Your task to perform on an android device: Open display settings Image 0: 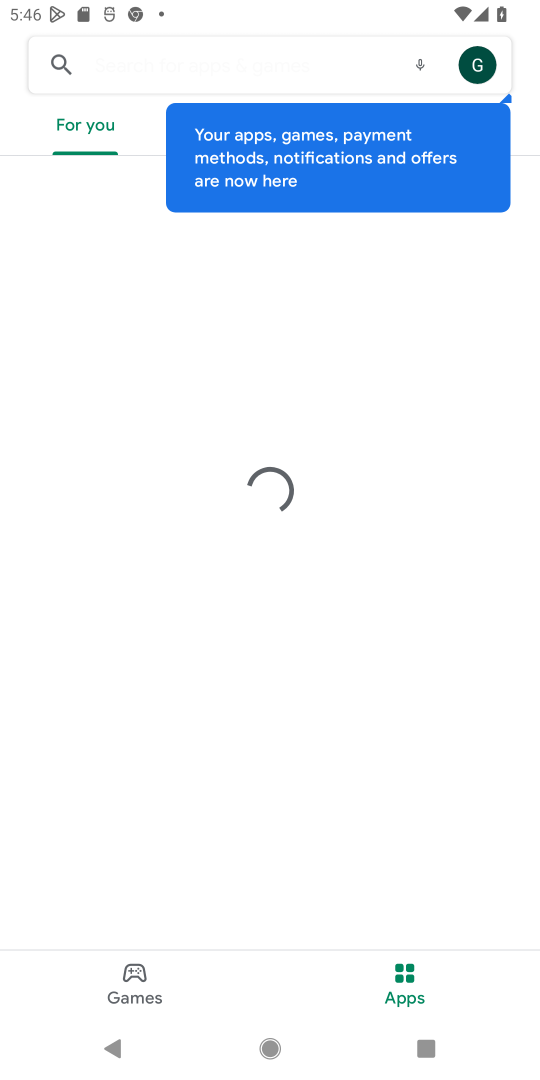
Step 0: press home button
Your task to perform on an android device: Open display settings Image 1: 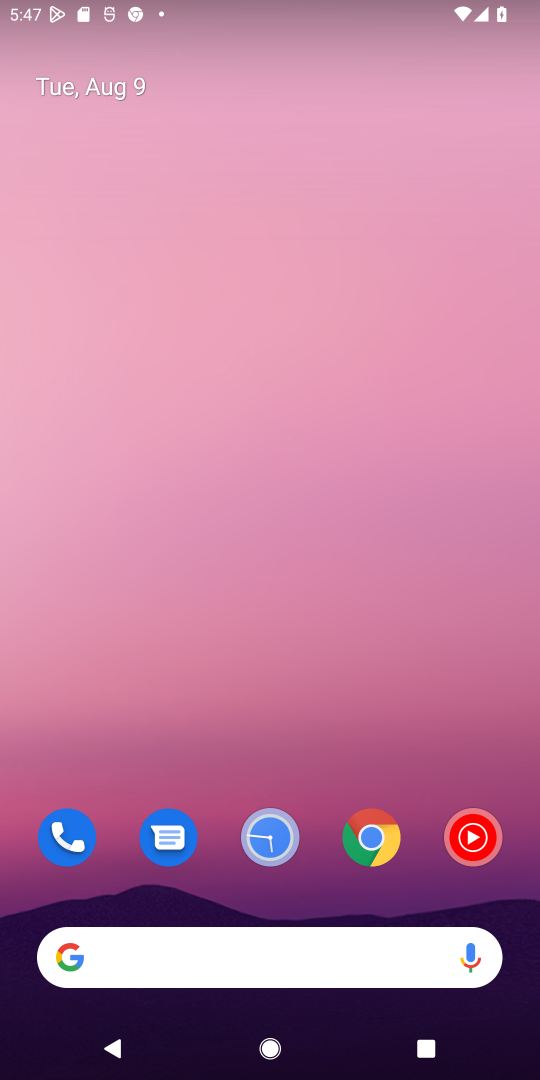
Step 1: drag from (167, 963) to (159, 366)
Your task to perform on an android device: Open display settings Image 2: 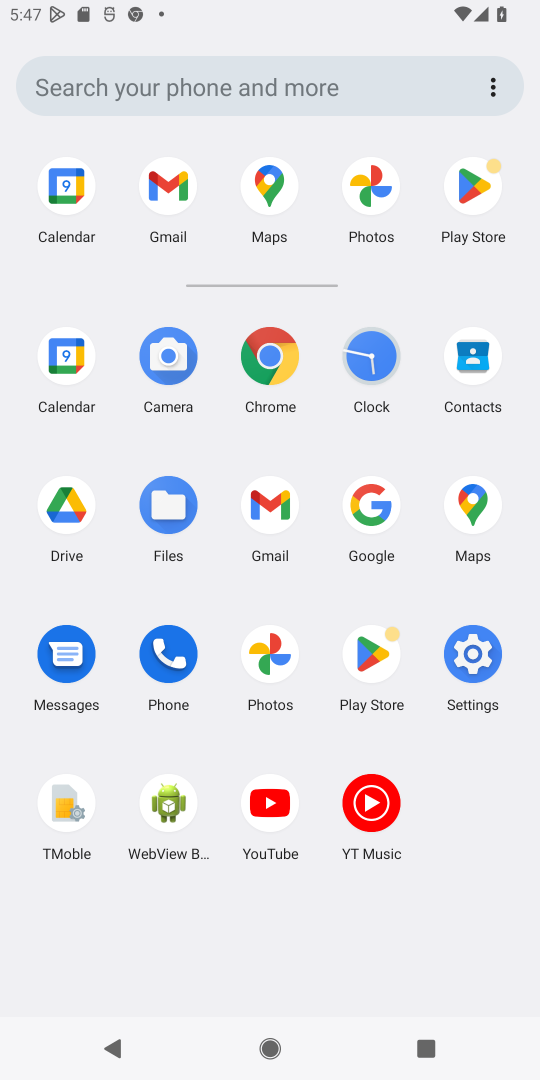
Step 2: click (456, 651)
Your task to perform on an android device: Open display settings Image 3: 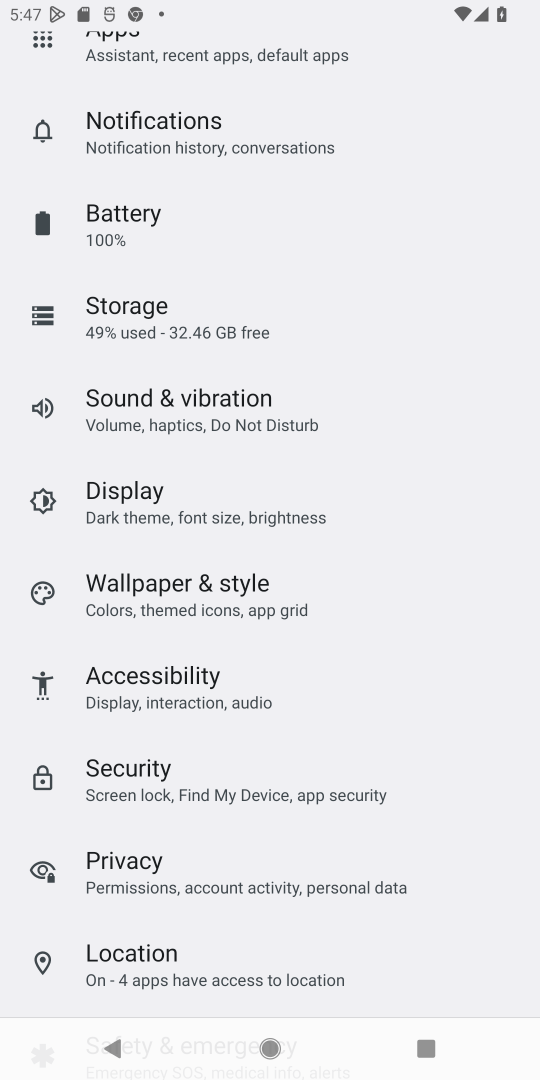
Step 3: drag from (204, 183) to (147, 609)
Your task to perform on an android device: Open display settings Image 4: 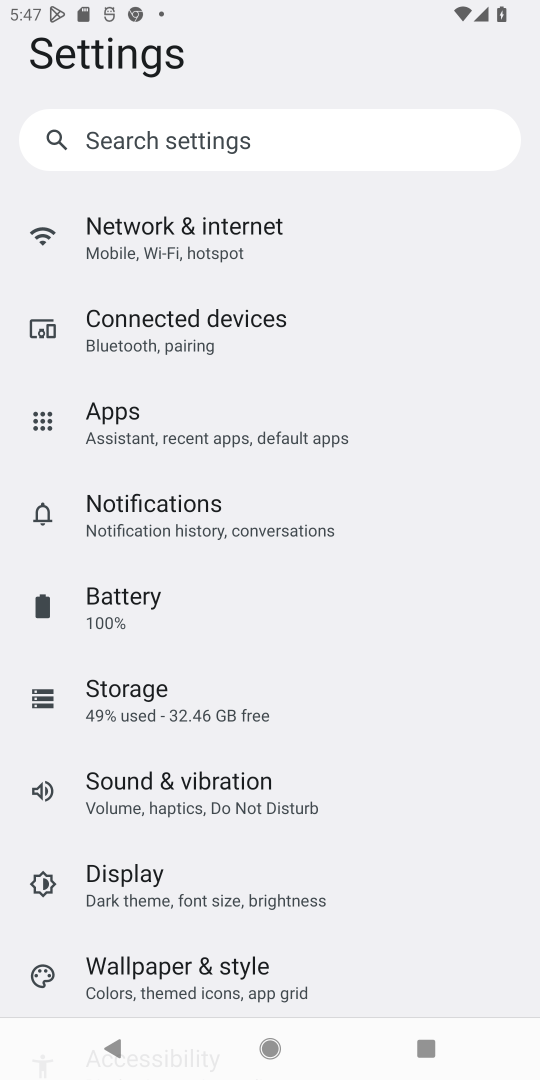
Step 4: click (153, 895)
Your task to perform on an android device: Open display settings Image 5: 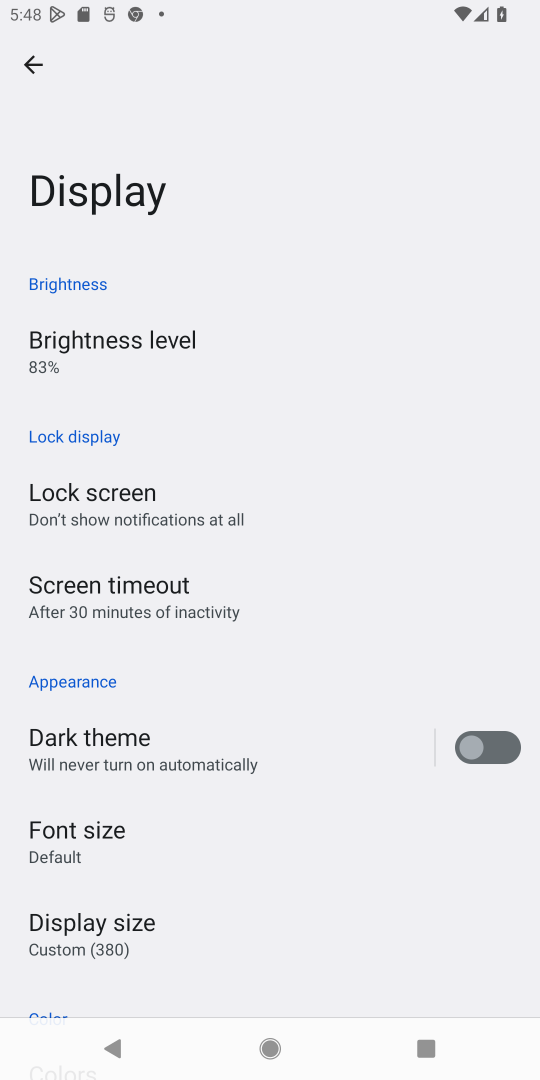
Step 5: task complete